Your task to perform on an android device: Open Google Image 0: 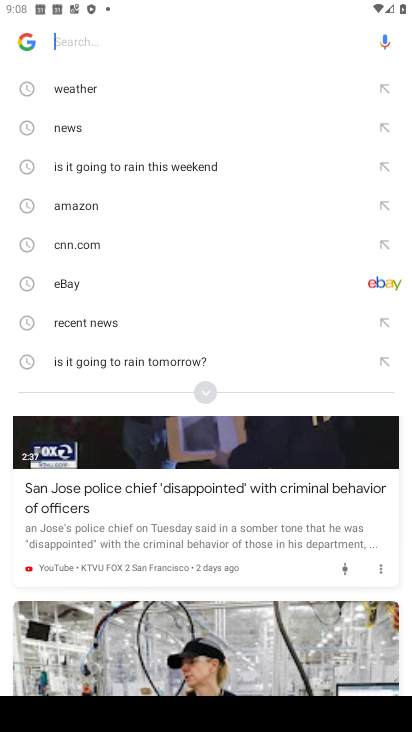
Step 0: drag from (189, 567) to (273, 175)
Your task to perform on an android device: Open Google Image 1: 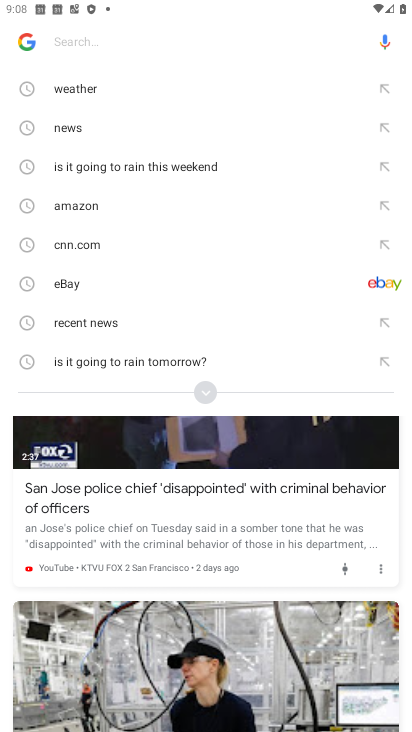
Step 1: drag from (250, 544) to (361, 47)
Your task to perform on an android device: Open Google Image 2: 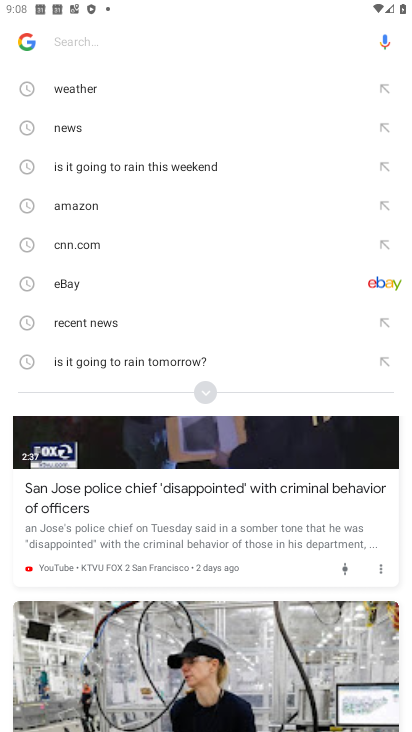
Step 2: press back button
Your task to perform on an android device: Open Google Image 3: 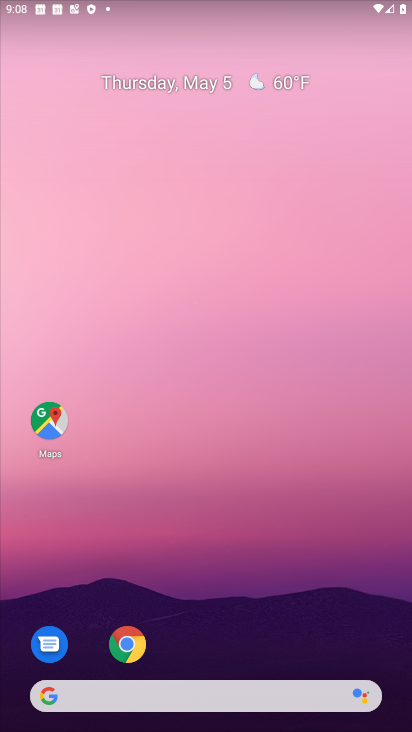
Step 3: click (166, 695)
Your task to perform on an android device: Open Google Image 4: 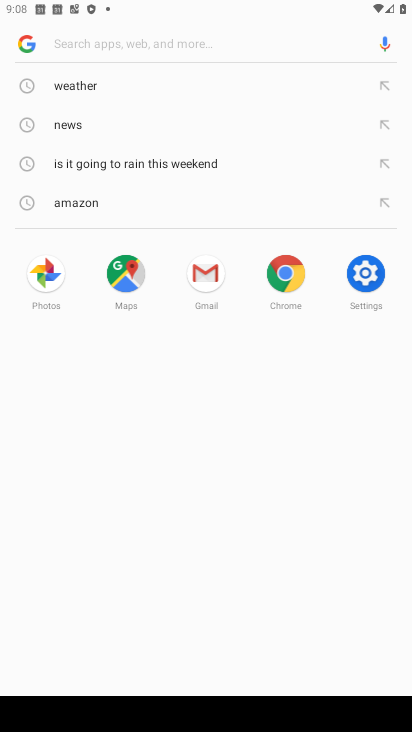
Step 4: press back button
Your task to perform on an android device: Open Google Image 5: 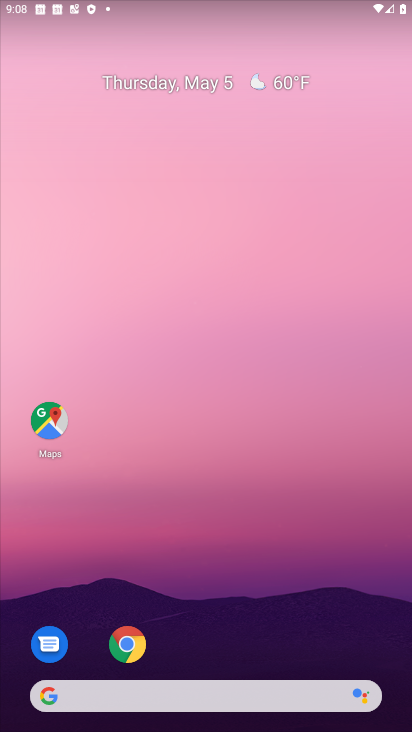
Step 5: drag from (155, 612) to (252, 90)
Your task to perform on an android device: Open Google Image 6: 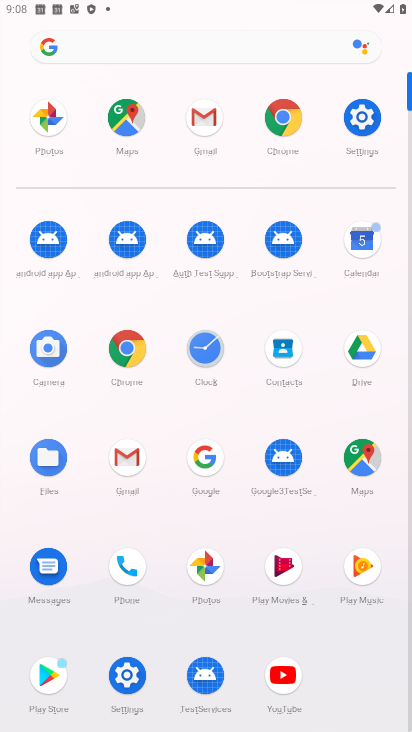
Step 6: click (194, 454)
Your task to perform on an android device: Open Google Image 7: 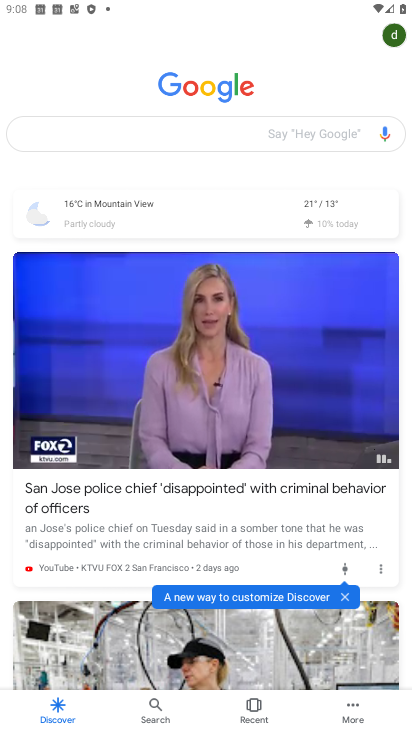
Step 7: task complete